Your task to perform on an android device: Open Wikipedia Image 0: 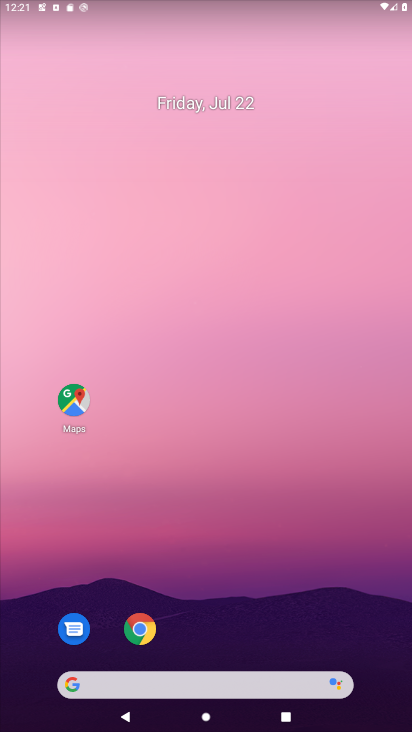
Step 0: drag from (269, 652) to (350, 103)
Your task to perform on an android device: Open Wikipedia Image 1: 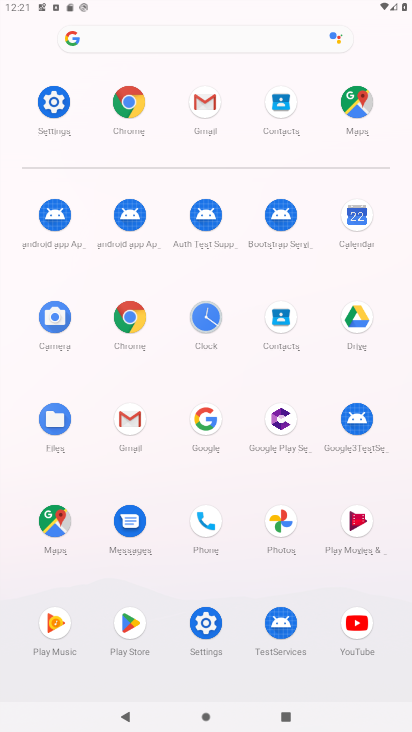
Step 1: click (130, 334)
Your task to perform on an android device: Open Wikipedia Image 2: 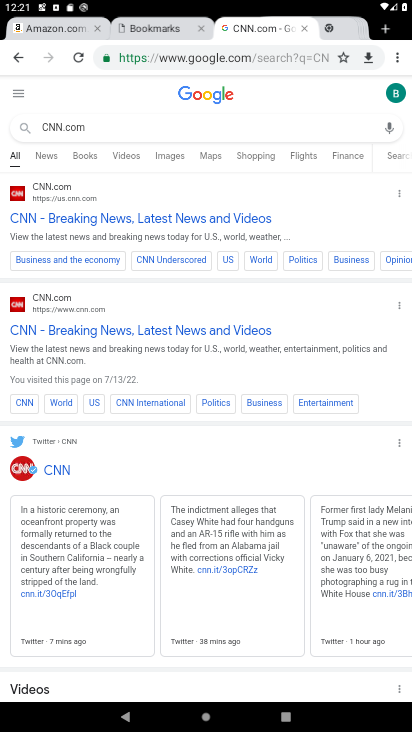
Step 2: click (400, 58)
Your task to perform on an android device: Open Wikipedia Image 3: 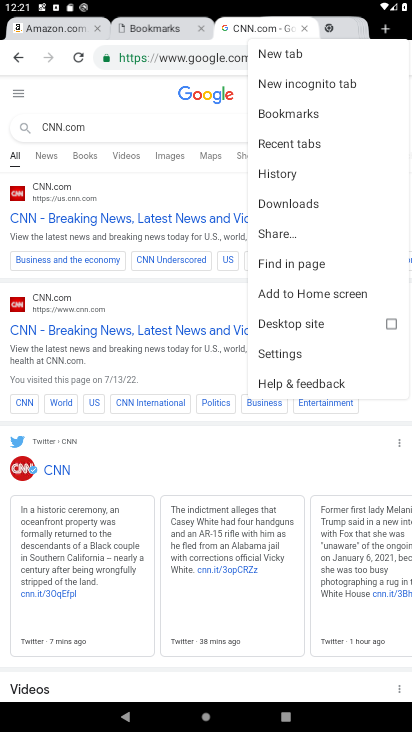
Step 3: click (295, 61)
Your task to perform on an android device: Open Wikipedia Image 4: 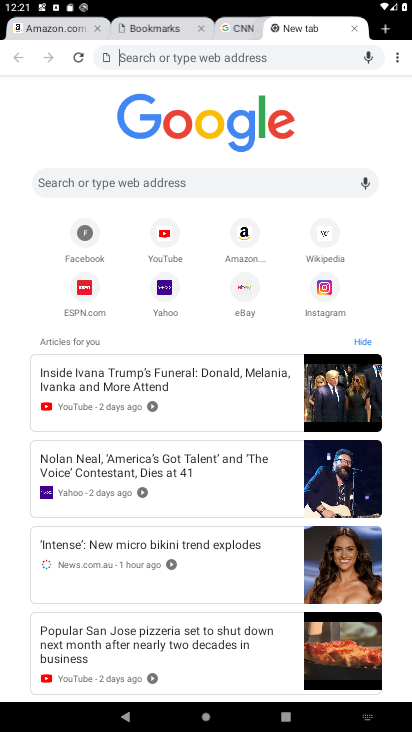
Step 4: click (339, 233)
Your task to perform on an android device: Open Wikipedia Image 5: 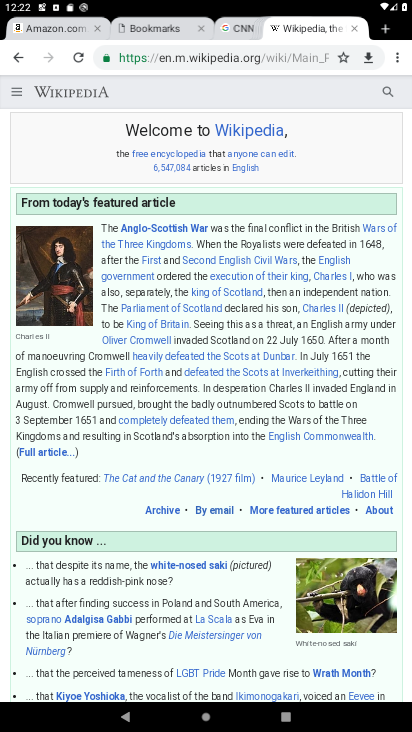
Step 5: task complete